Your task to perform on an android device: read, delete, or share a saved page in the chrome app Image 0: 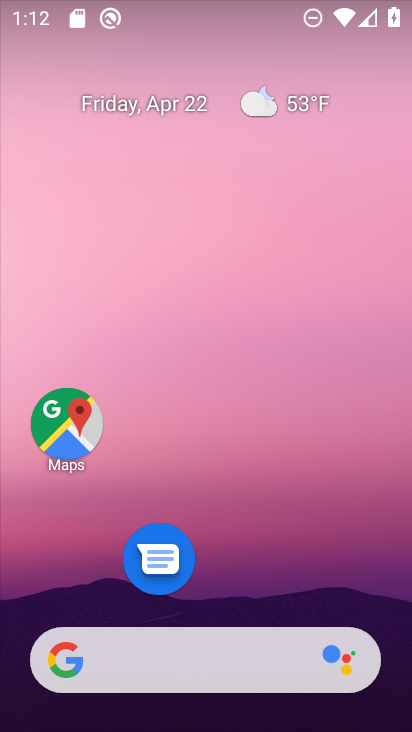
Step 0: drag from (235, 676) to (180, 241)
Your task to perform on an android device: read, delete, or share a saved page in the chrome app Image 1: 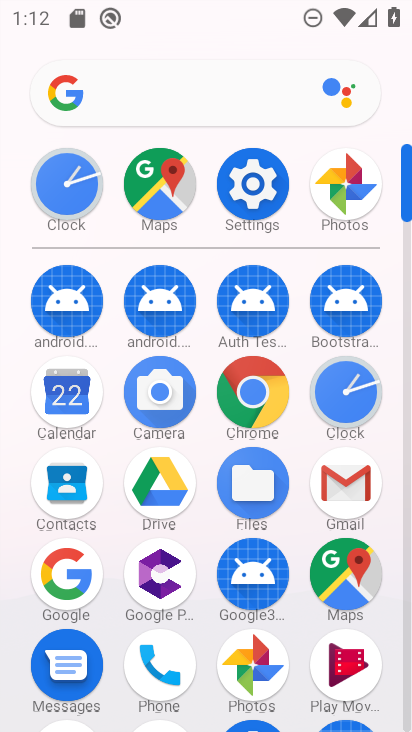
Step 1: click (255, 391)
Your task to perform on an android device: read, delete, or share a saved page in the chrome app Image 2: 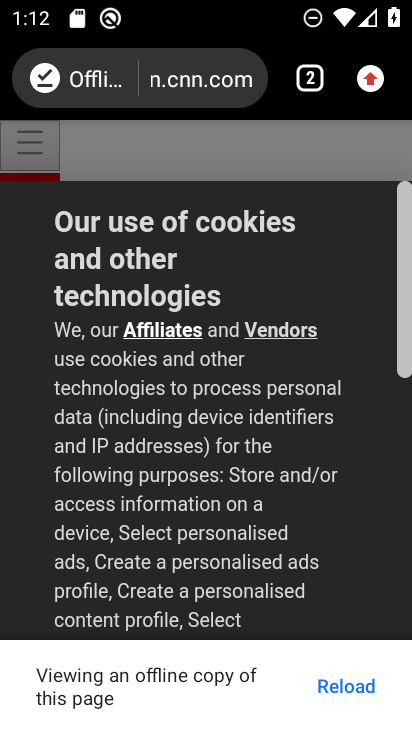
Step 2: drag from (368, 75) to (107, 576)
Your task to perform on an android device: read, delete, or share a saved page in the chrome app Image 3: 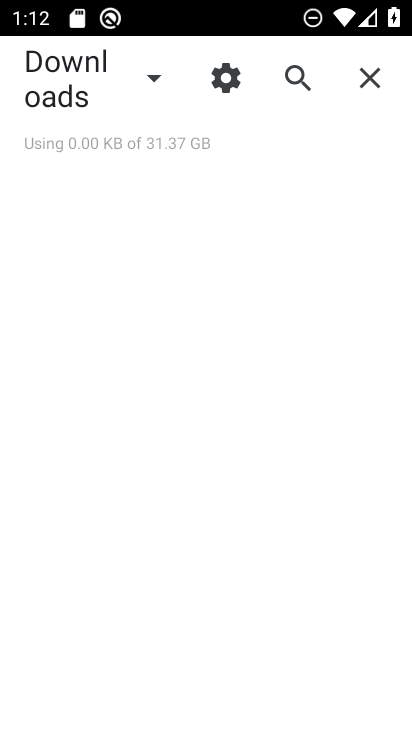
Step 3: click (151, 72)
Your task to perform on an android device: read, delete, or share a saved page in the chrome app Image 4: 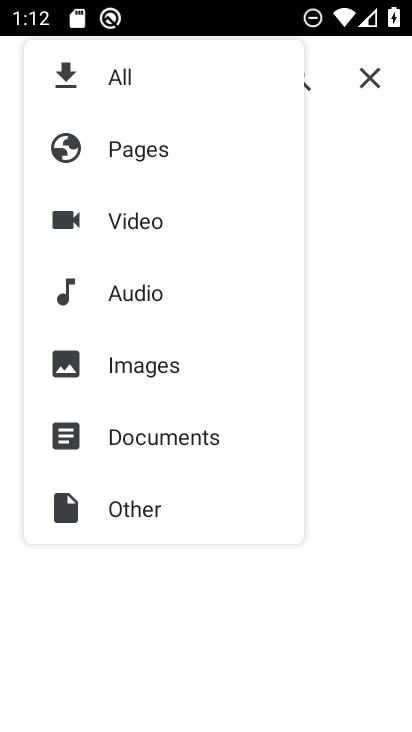
Step 4: click (131, 151)
Your task to perform on an android device: read, delete, or share a saved page in the chrome app Image 5: 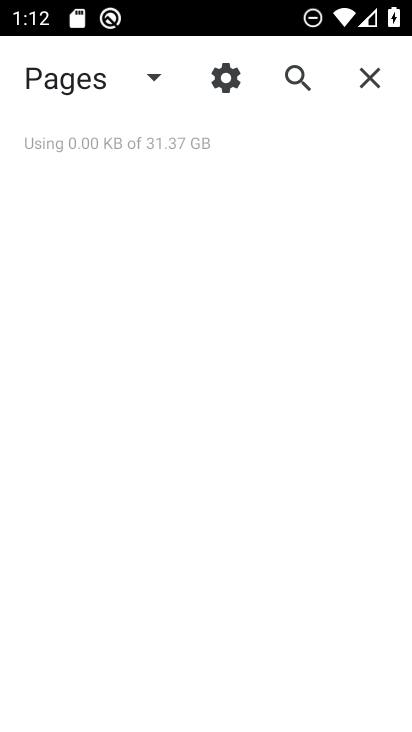
Step 5: task complete